Your task to perform on an android device: Open settings Image 0: 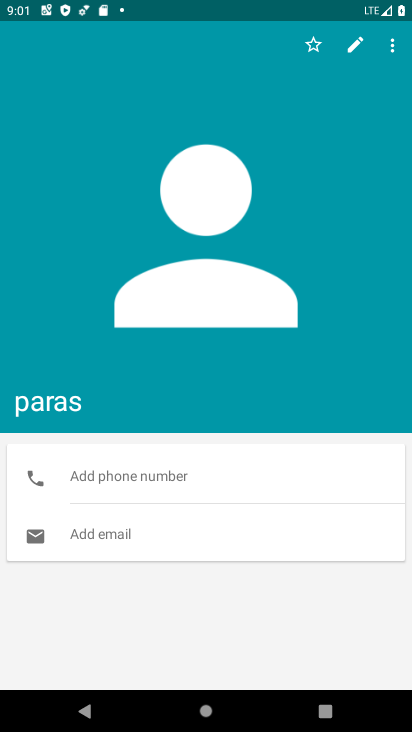
Step 0: press home button
Your task to perform on an android device: Open settings Image 1: 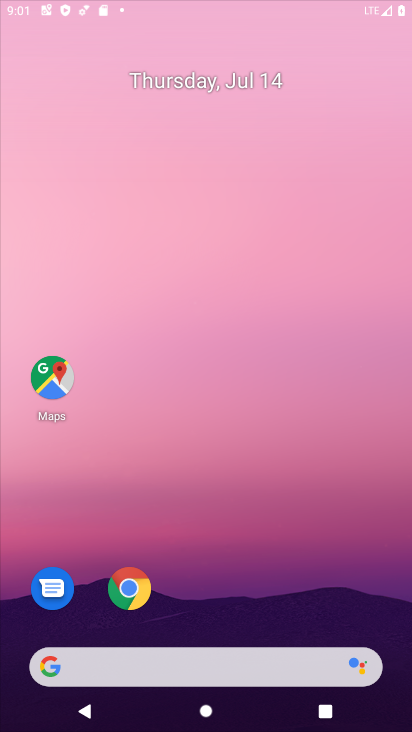
Step 1: drag from (404, 618) to (206, 40)
Your task to perform on an android device: Open settings Image 2: 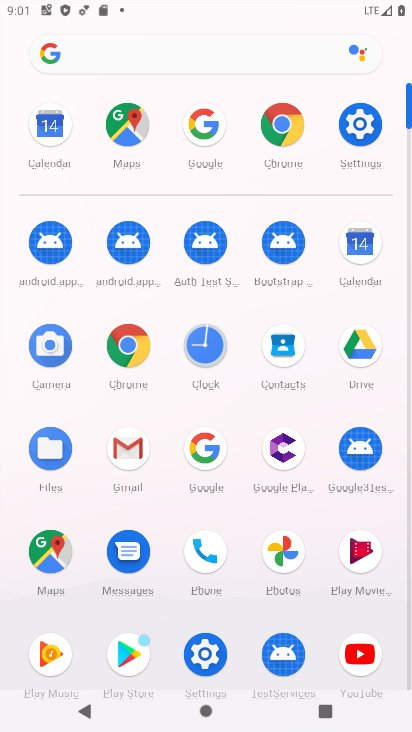
Step 2: click (202, 665)
Your task to perform on an android device: Open settings Image 3: 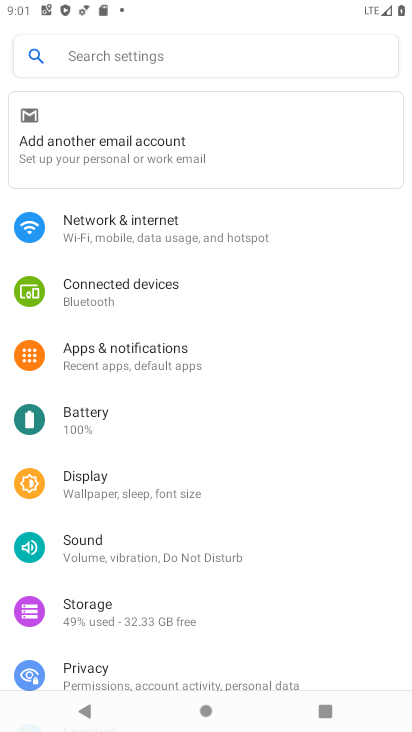
Step 3: task complete